Your task to perform on an android device: change the clock style Image 0: 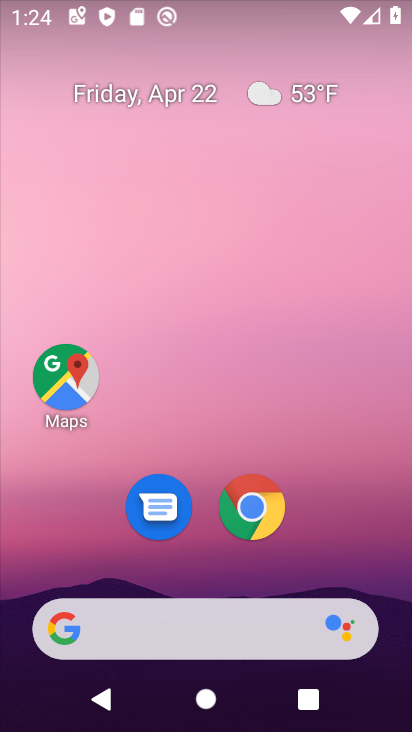
Step 0: drag from (308, 559) to (265, 185)
Your task to perform on an android device: change the clock style Image 1: 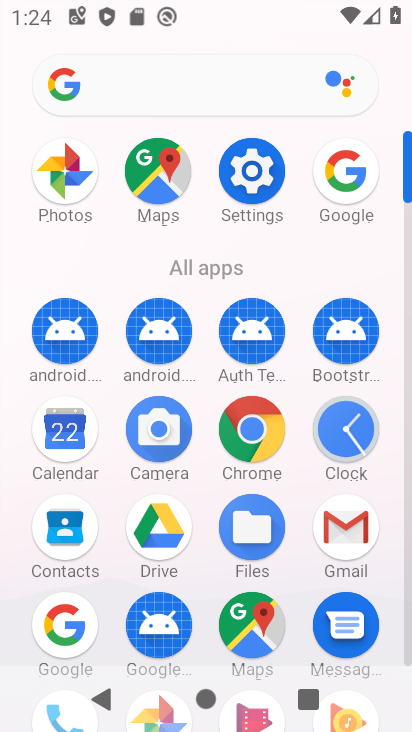
Step 1: click (334, 422)
Your task to perform on an android device: change the clock style Image 2: 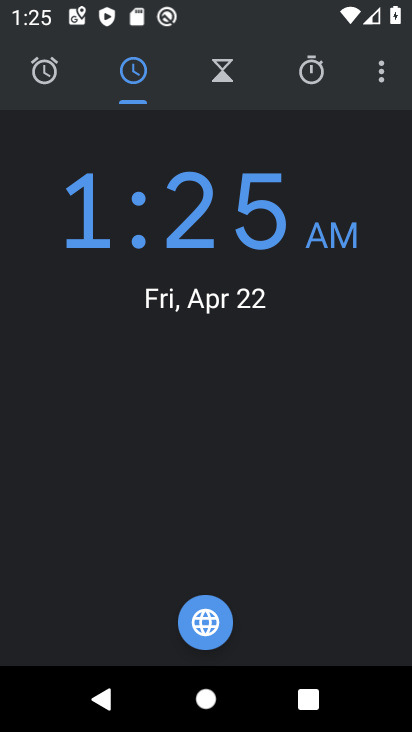
Step 2: click (385, 80)
Your task to perform on an android device: change the clock style Image 3: 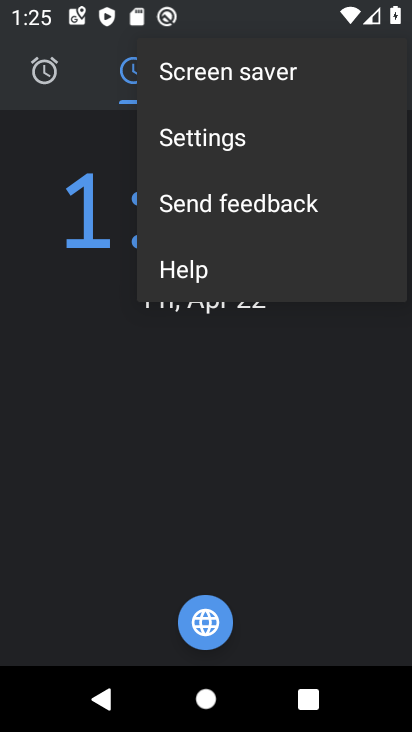
Step 3: click (246, 145)
Your task to perform on an android device: change the clock style Image 4: 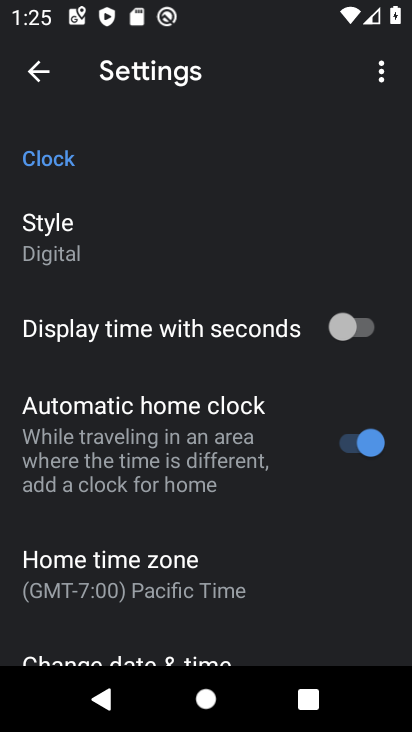
Step 4: click (52, 262)
Your task to perform on an android device: change the clock style Image 5: 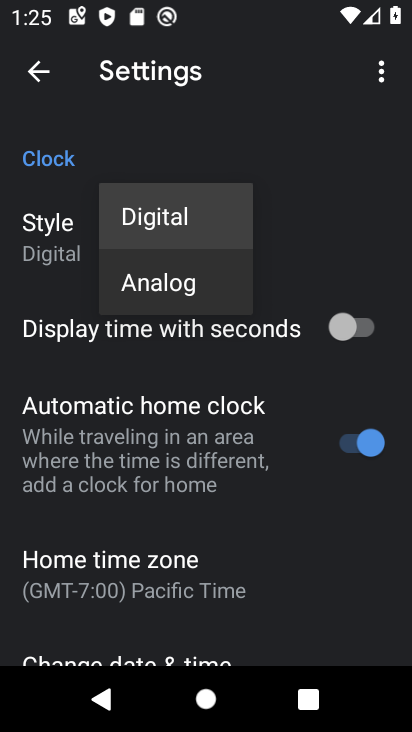
Step 5: click (138, 284)
Your task to perform on an android device: change the clock style Image 6: 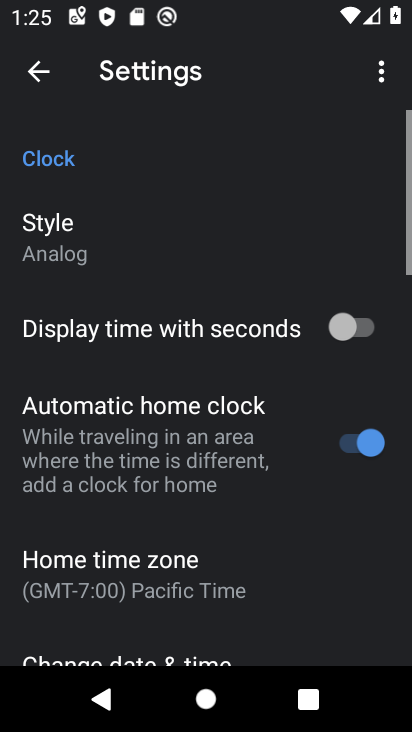
Step 6: task complete